Your task to perform on an android device: Open CNN.com Image 0: 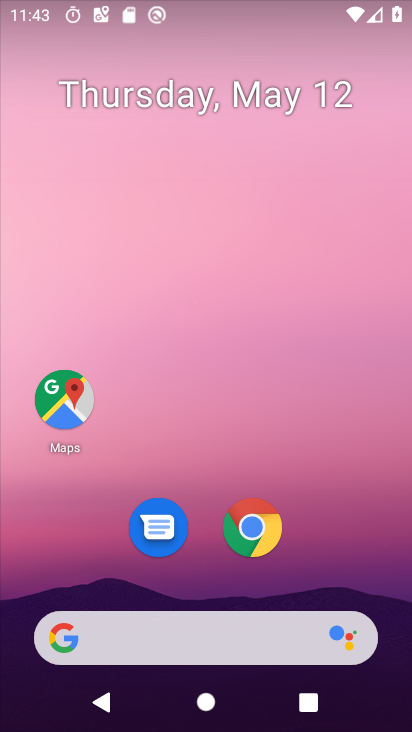
Step 0: click (239, 521)
Your task to perform on an android device: Open CNN.com Image 1: 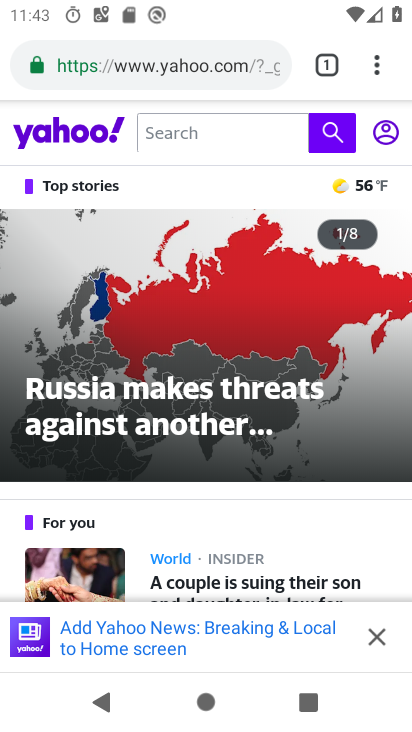
Step 1: press back button
Your task to perform on an android device: Open CNN.com Image 2: 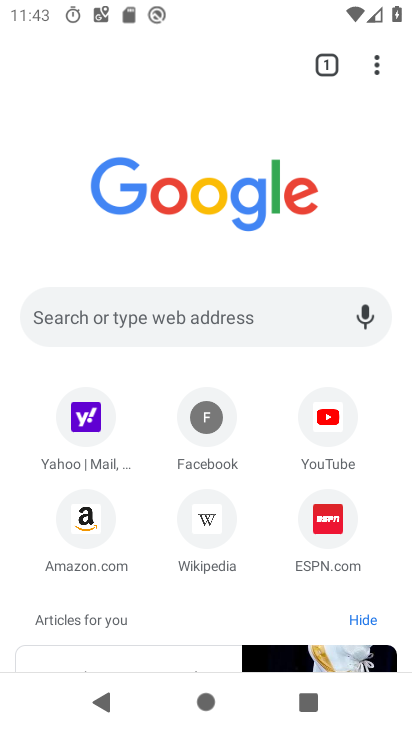
Step 2: click (215, 310)
Your task to perform on an android device: Open CNN.com Image 3: 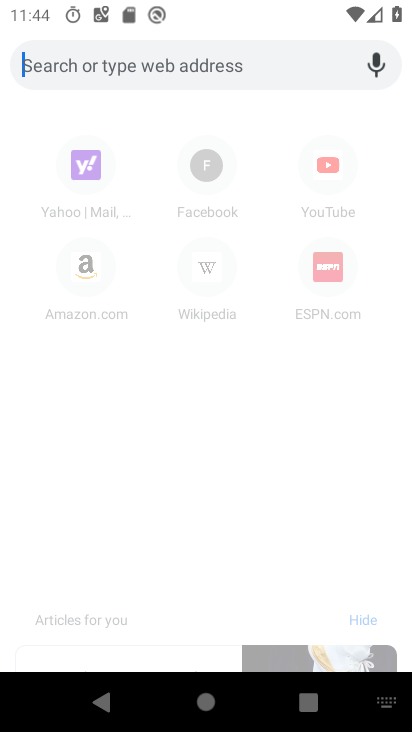
Step 3: type "www.cnn.com"
Your task to perform on an android device: Open CNN.com Image 4: 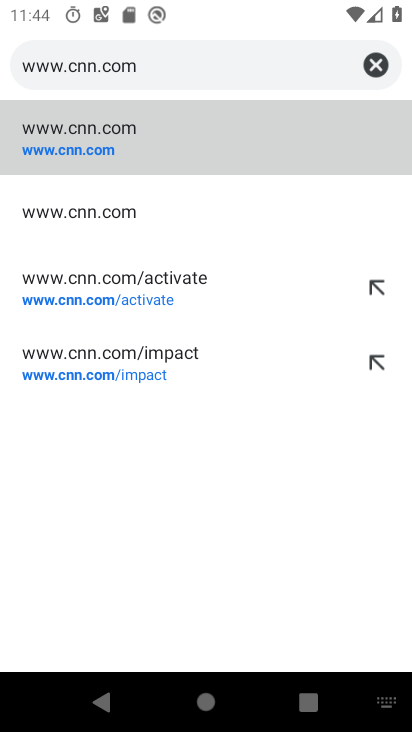
Step 4: click (99, 154)
Your task to perform on an android device: Open CNN.com Image 5: 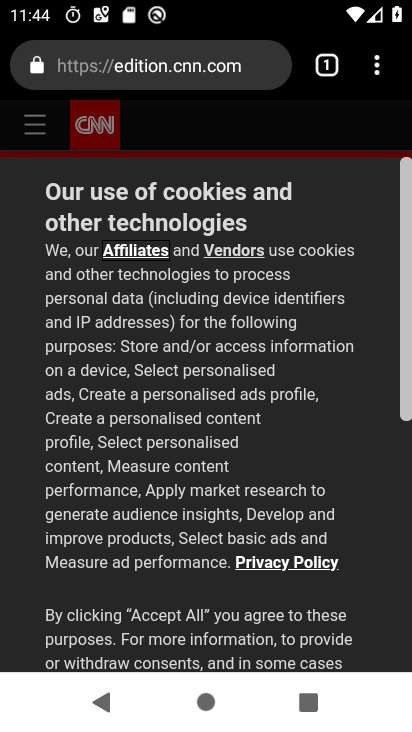
Step 5: task complete